Your task to perform on an android device: Go to settings Image 0: 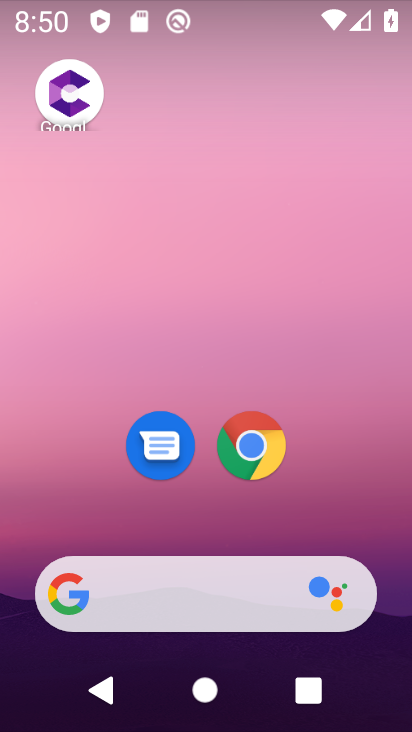
Step 0: drag from (234, 531) to (294, 11)
Your task to perform on an android device: Go to settings Image 1: 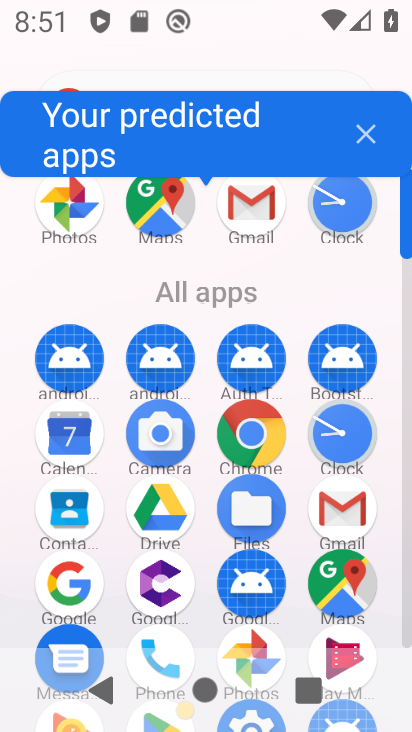
Step 1: drag from (294, 514) to (337, 5)
Your task to perform on an android device: Go to settings Image 2: 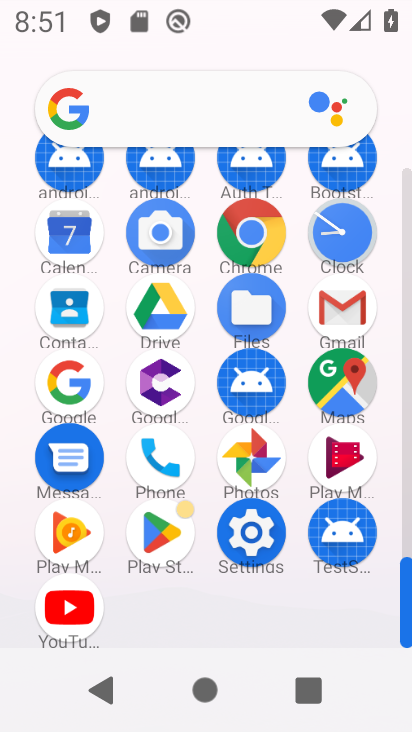
Step 2: click (255, 527)
Your task to perform on an android device: Go to settings Image 3: 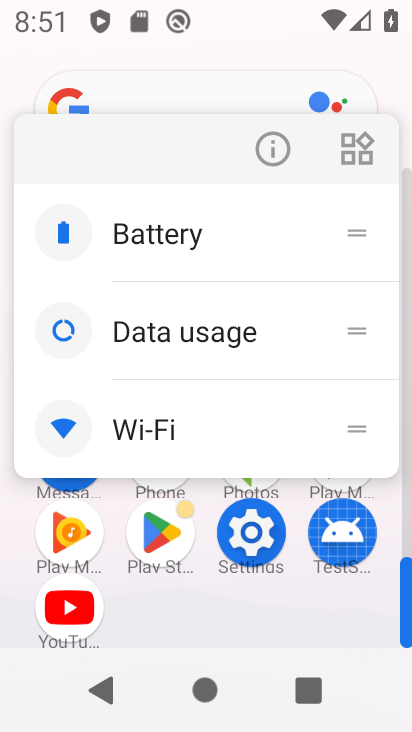
Step 3: click (255, 525)
Your task to perform on an android device: Go to settings Image 4: 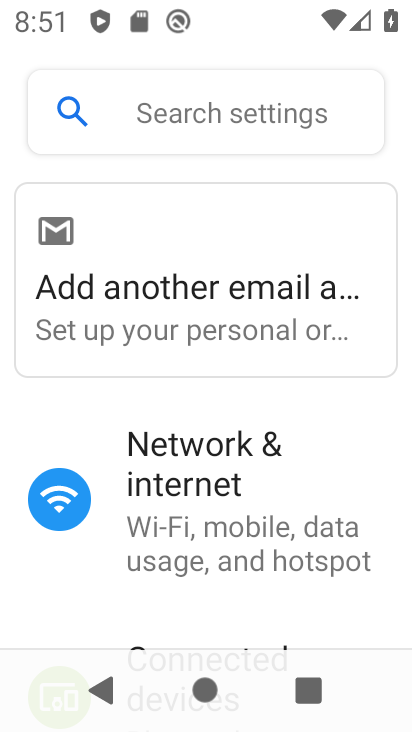
Step 4: task complete